Your task to perform on an android device: empty trash in the gmail app Image 0: 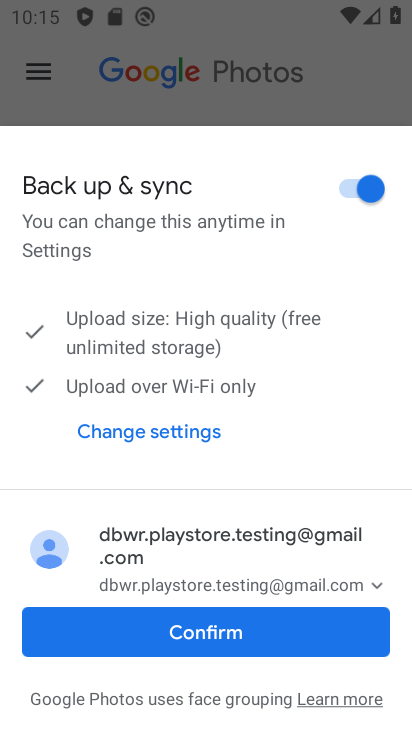
Step 0: press home button
Your task to perform on an android device: empty trash in the gmail app Image 1: 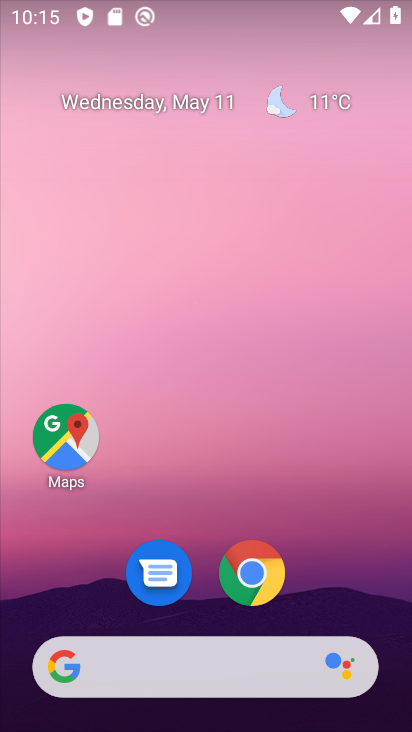
Step 1: drag from (204, 462) to (236, 105)
Your task to perform on an android device: empty trash in the gmail app Image 2: 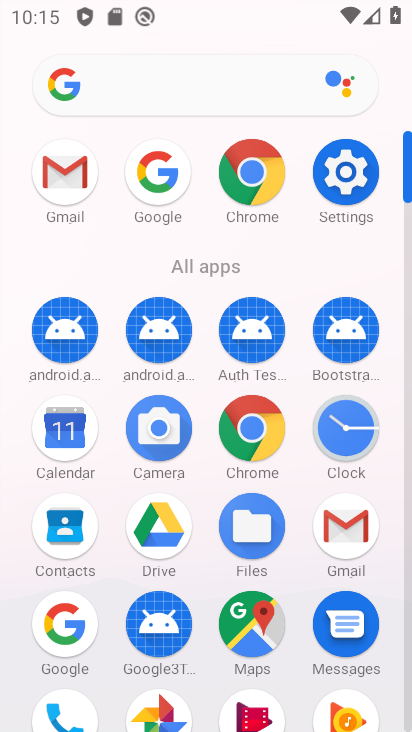
Step 2: click (53, 180)
Your task to perform on an android device: empty trash in the gmail app Image 3: 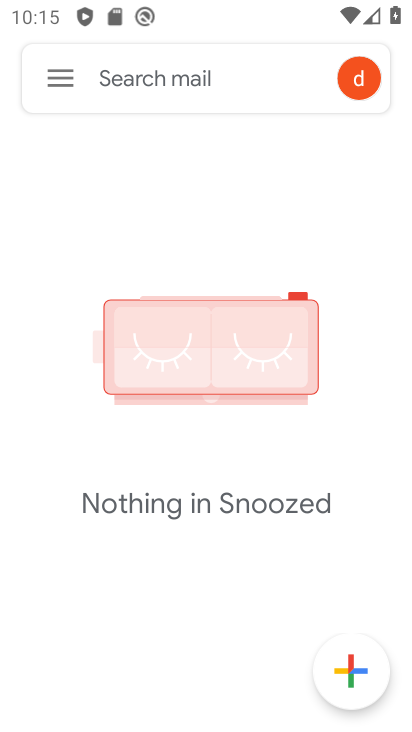
Step 3: click (63, 71)
Your task to perform on an android device: empty trash in the gmail app Image 4: 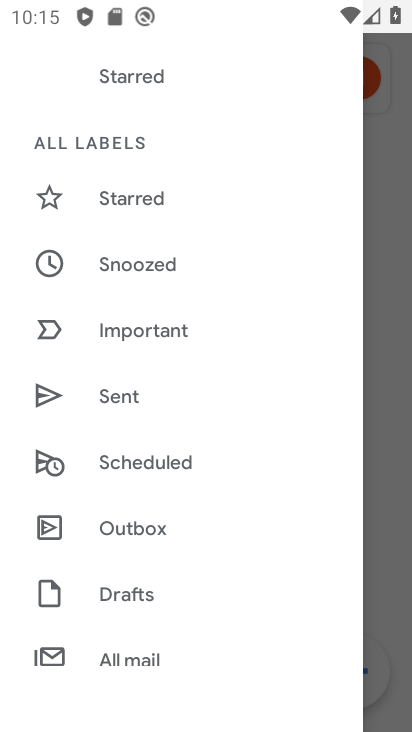
Step 4: drag from (134, 615) to (187, 195)
Your task to perform on an android device: empty trash in the gmail app Image 5: 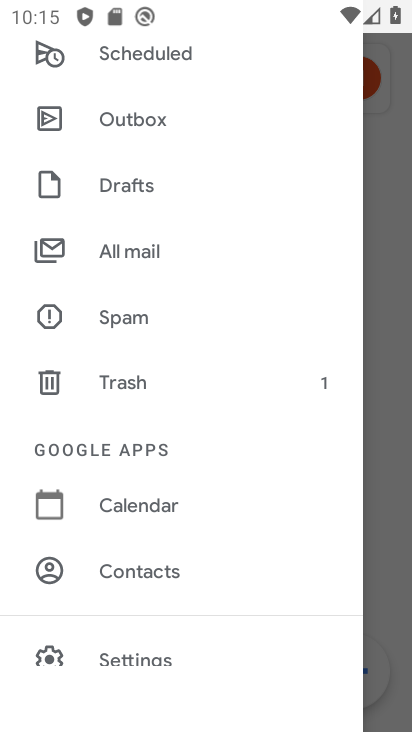
Step 5: click (131, 382)
Your task to perform on an android device: empty trash in the gmail app Image 6: 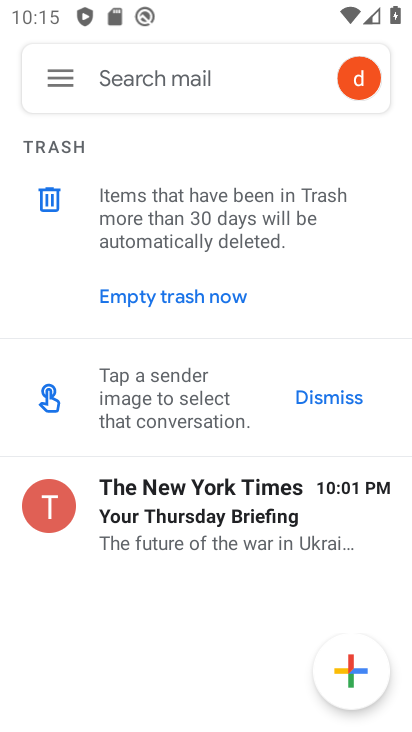
Step 6: click (53, 195)
Your task to perform on an android device: empty trash in the gmail app Image 7: 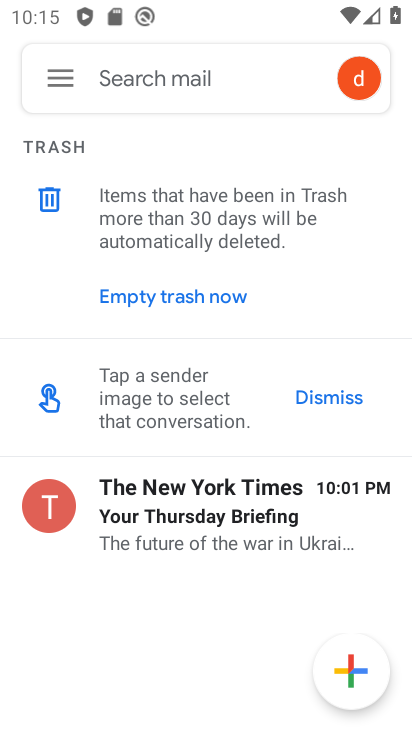
Step 7: click (135, 294)
Your task to perform on an android device: empty trash in the gmail app Image 8: 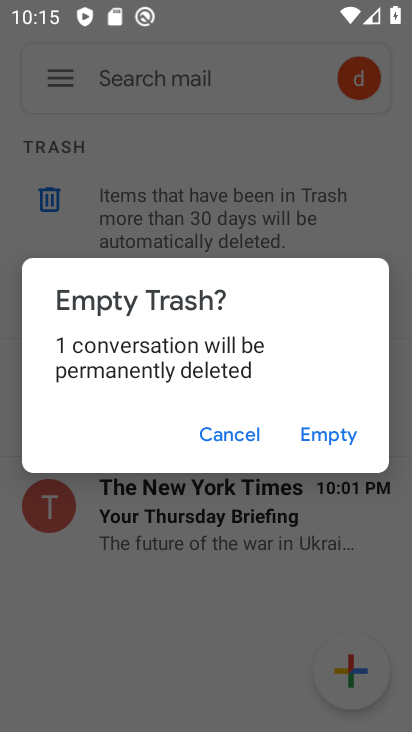
Step 8: click (312, 432)
Your task to perform on an android device: empty trash in the gmail app Image 9: 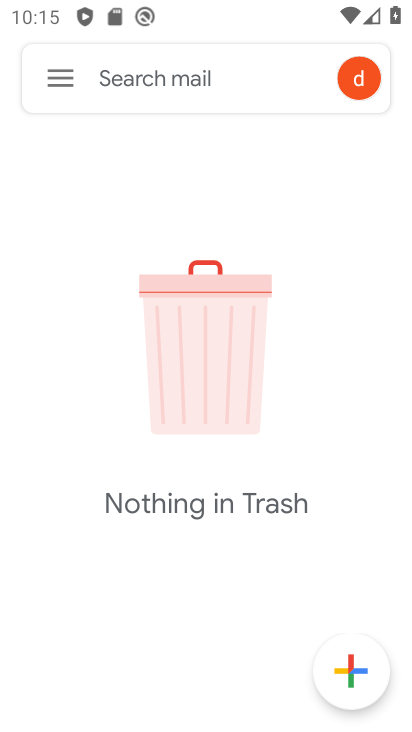
Step 9: task complete